Your task to perform on an android device: Is it going to rain this weekend? Image 0: 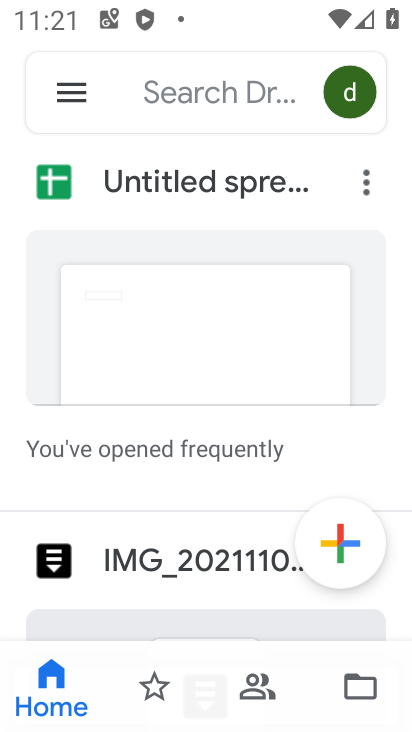
Step 0: press home button
Your task to perform on an android device: Is it going to rain this weekend? Image 1: 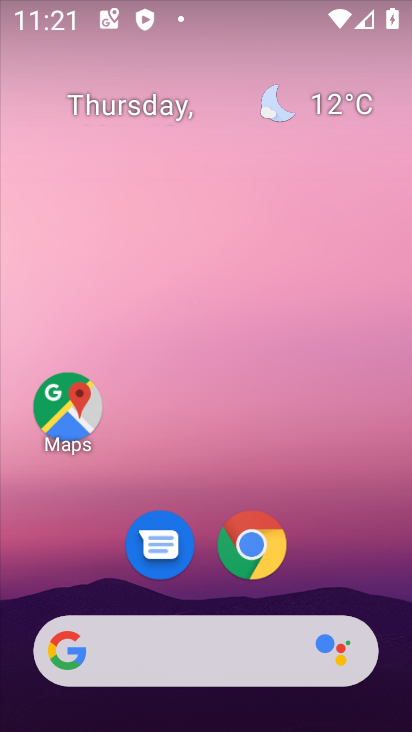
Step 1: click (225, 653)
Your task to perform on an android device: Is it going to rain this weekend? Image 2: 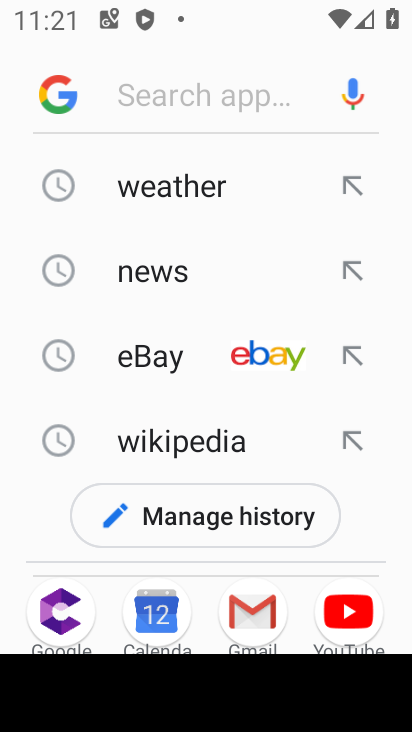
Step 2: type "is it going to rain this weekend"
Your task to perform on an android device: Is it going to rain this weekend? Image 3: 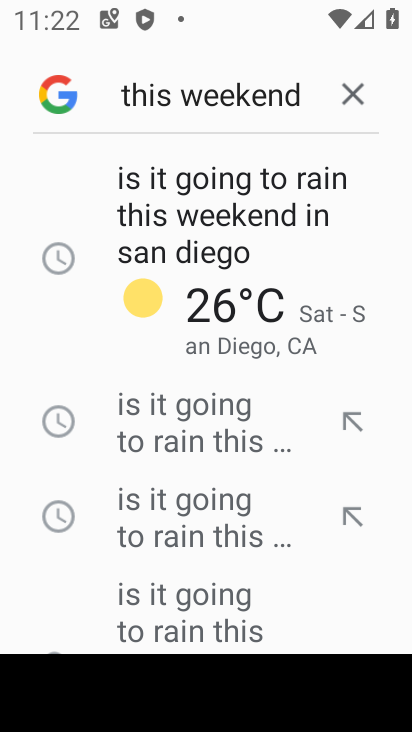
Step 3: click (265, 214)
Your task to perform on an android device: Is it going to rain this weekend? Image 4: 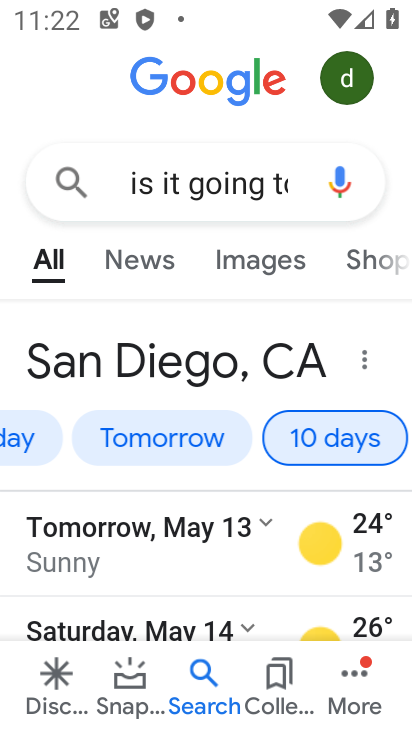
Step 4: task complete